Your task to perform on an android device: Go to Maps Image 0: 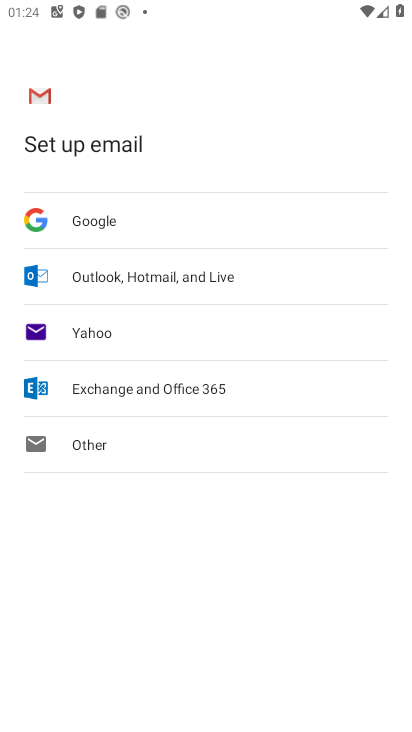
Step 0: press back button
Your task to perform on an android device: Go to Maps Image 1: 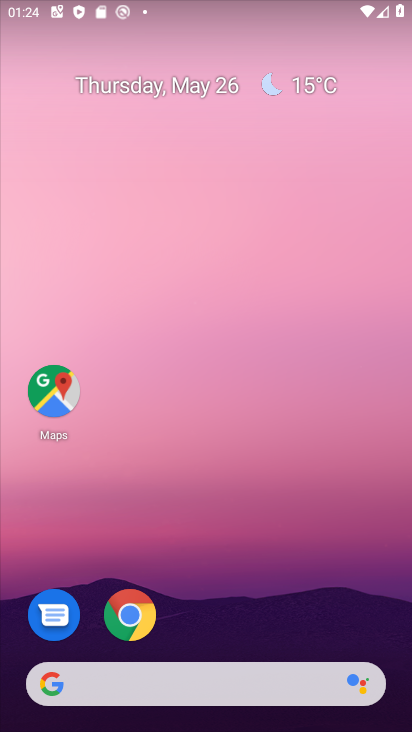
Step 1: click (38, 385)
Your task to perform on an android device: Go to Maps Image 2: 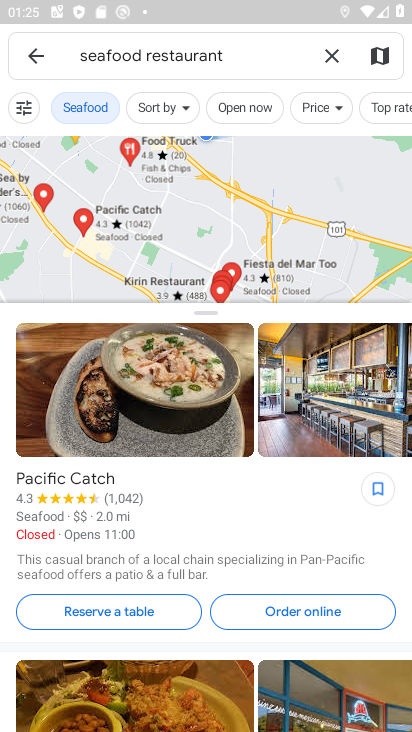
Step 2: task complete